Your task to perform on an android device: toggle priority inbox in the gmail app Image 0: 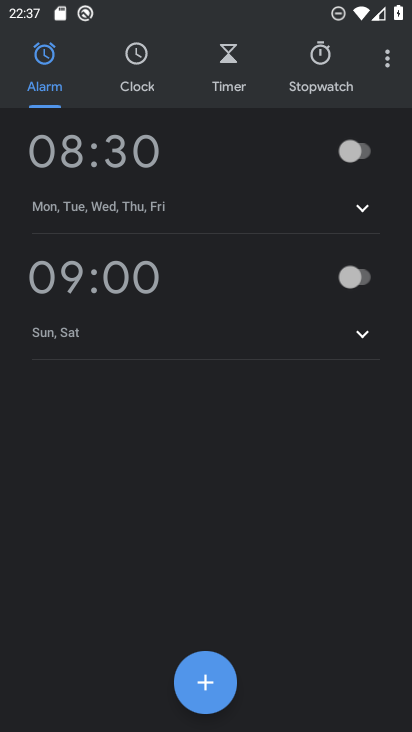
Step 0: press home button
Your task to perform on an android device: toggle priority inbox in the gmail app Image 1: 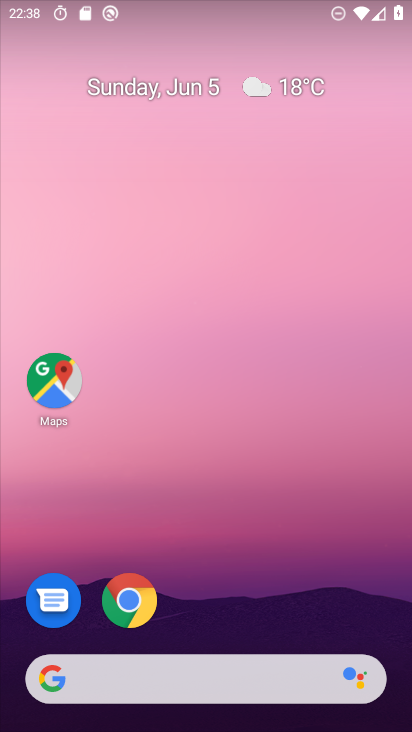
Step 1: drag from (282, 585) to (305, 62)
Your task to perform on an android device: toggle priority inbox in the gmail app Image 2: 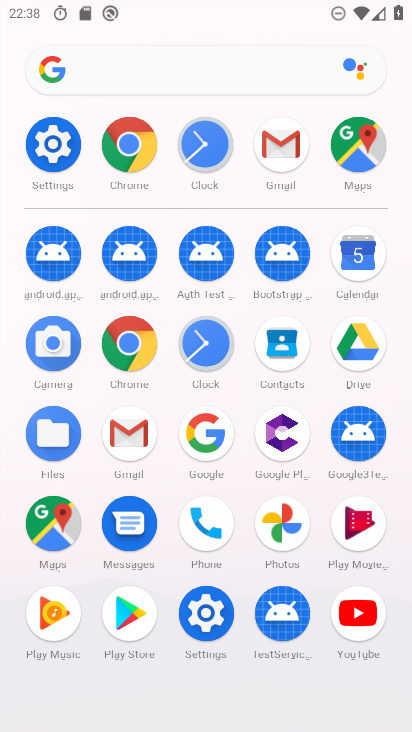
Step 2: click (297, 138)
Your task to perform on an android device: toggle priority inbox in the gmail app Image 3: 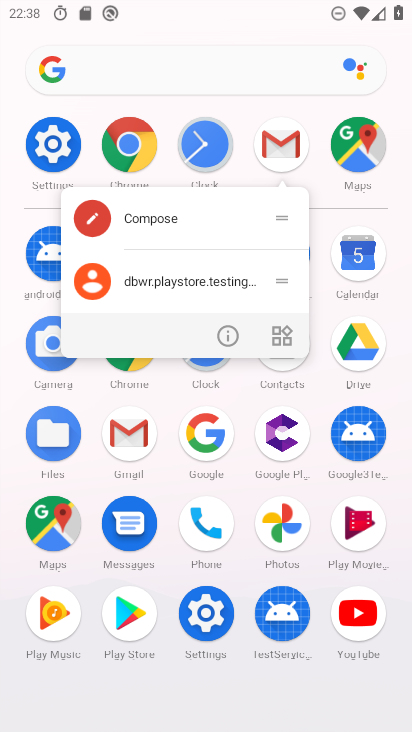
Step 3: click (284, 149)
Your task to perform on an android device: toggle priority inbox in the gmail app Image 4: 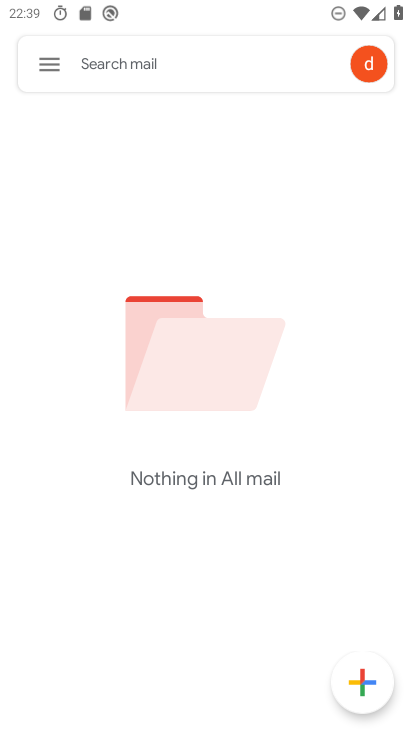
Step 4: click (51, 70)
Your task to perform on an android device: toggle priority inbox in the gmail app Image 5: 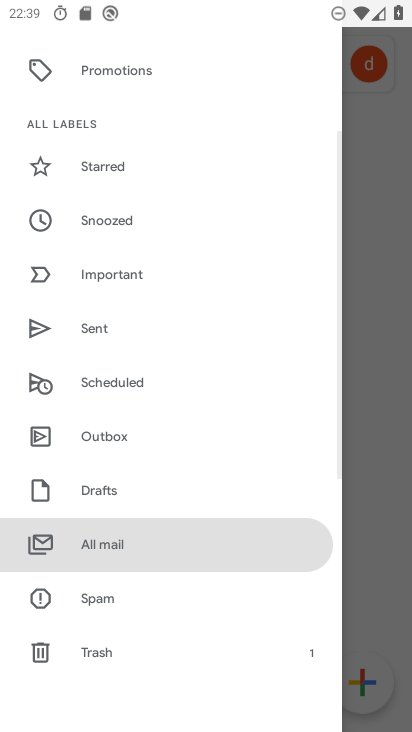
Step 5: drag from (208, 640) to (178, 150)
Your task to perform on an android device: toggle priority inbox in the gmail app Image 6: 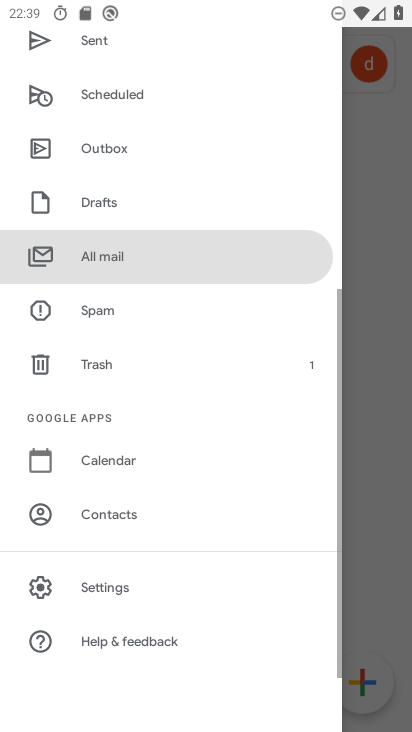
Step 6: click (103, 582)
Your task to perform on an android device: toggle priority inbox in the gmail app Image 7: 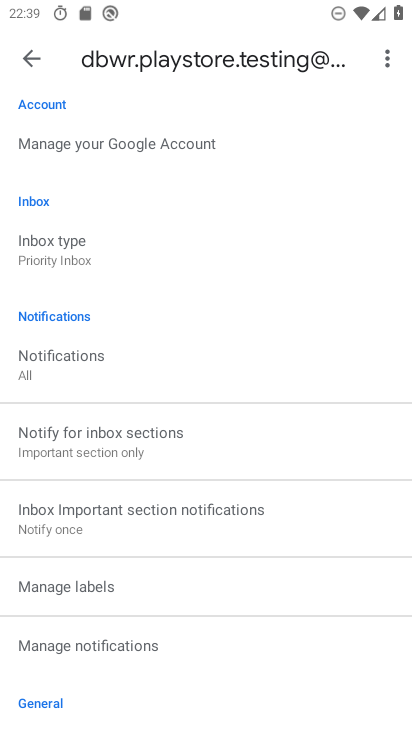
Step 7: click (64, 258)
Your task to perform on an android device: toggle priority inbox in the gmail app Image 8: 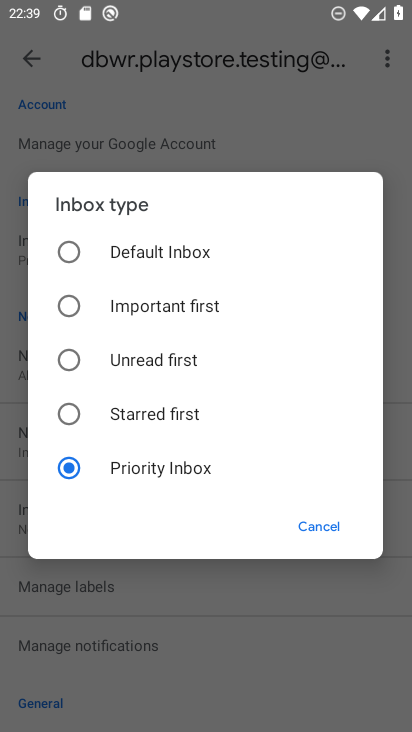
Step 8: click (133, 257)
Your task to perform on an android device: toggle priority inbox in the gmail app Image 9: 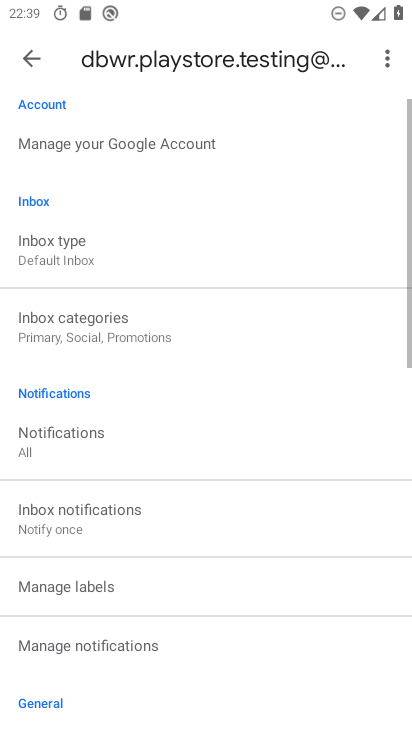
Step 9: task complete